Your task to perform on an android device: turn off translation in the chrome app Image 0: 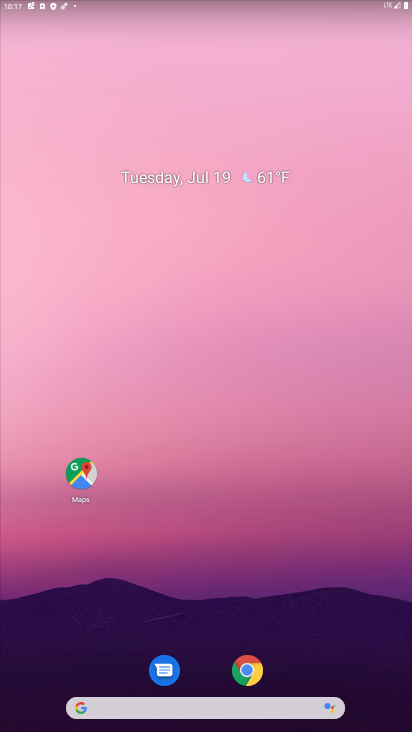
Step 0: click (250, 664)
Your task to perform on an android device: turn off translation in the chrome app Image 1: 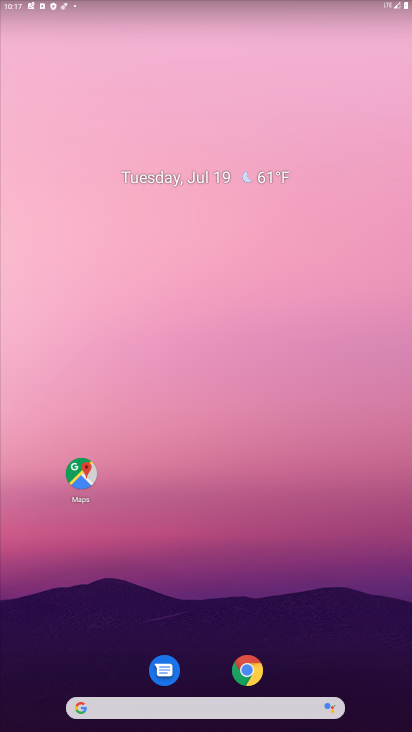
Step 1: click (250, 664)
Your task to perform on an android device: turn off translation in the chrome app Image 2: 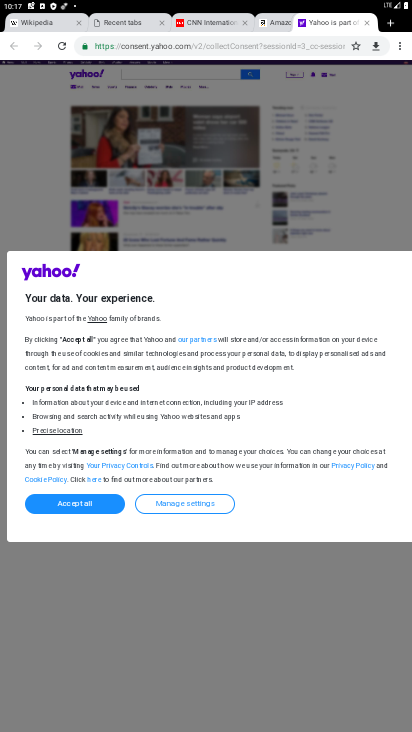
Step 2: click (402, 36)
Your task to perform on an android device: turn off translation in the chrome app Image 3: 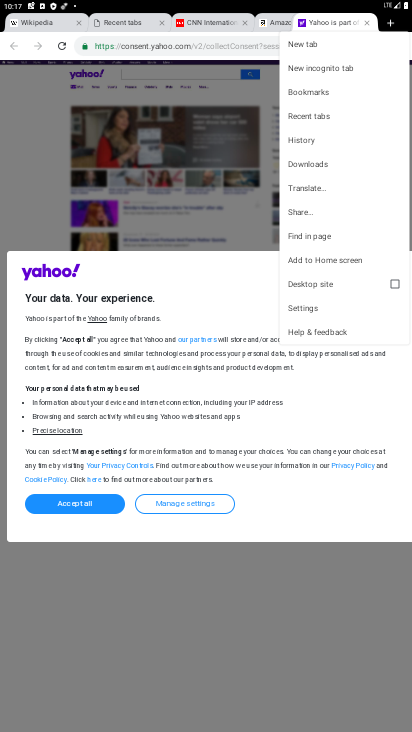
Step 3: click (318, 310)
Your task to perform on an android device: turn off translation in the chrome app Image 4: 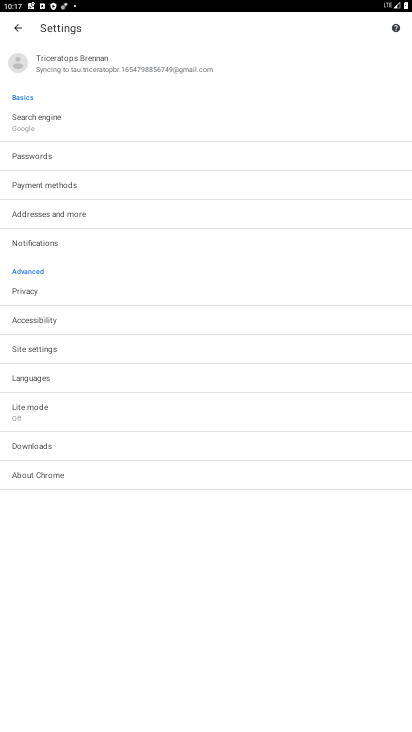
Step 4: click (52, 371)
Your task to perform on an android device: turn off translation in the chrome app Image 5: 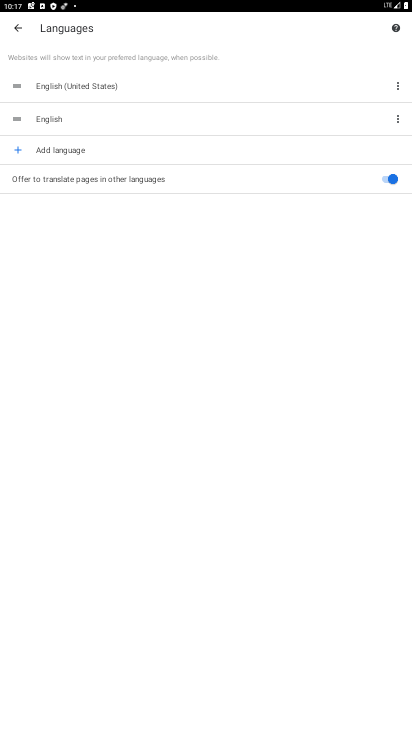
Step 5: click (383, 174)
Your task to perform on an android device: turn off translation in the chrome app Image 6: 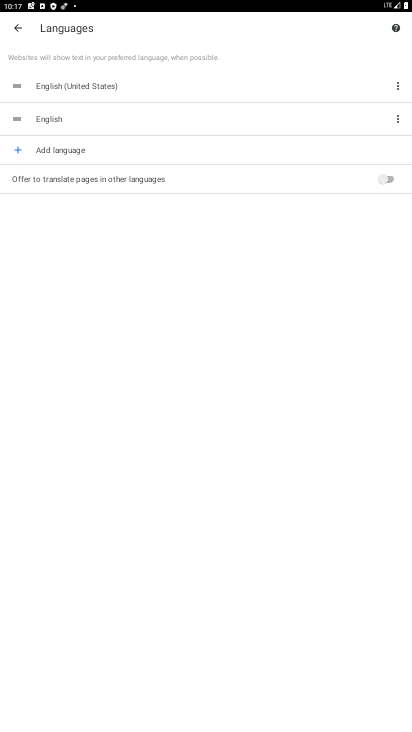
Step 6: task complete